Your task to perform on an android device: turn on the 12-hour format for clock Image 0: 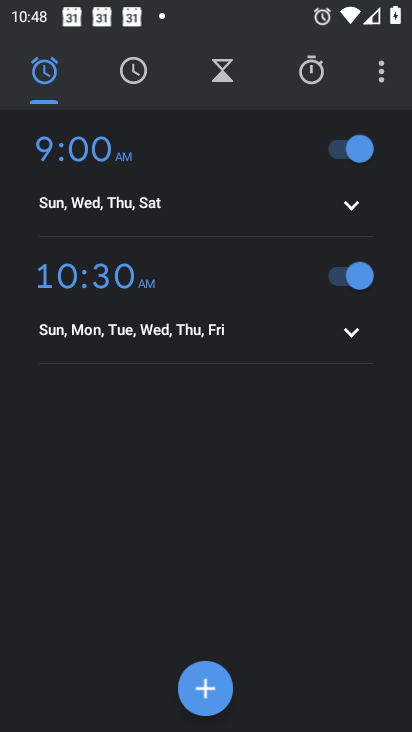
Step 0: press home button
Your task to perform on an android device: turn on the 12-hour format for clock Image 1: 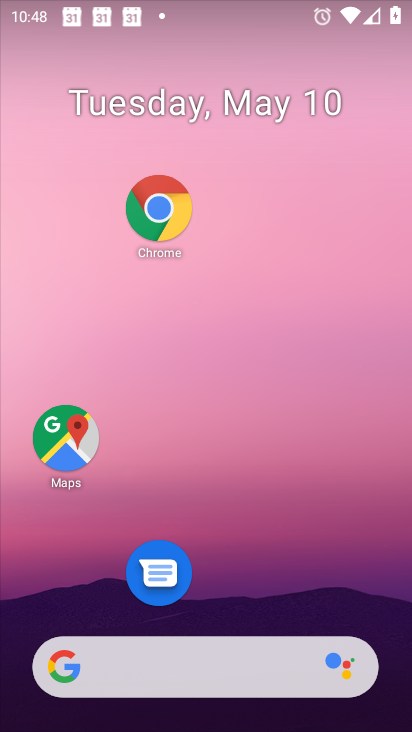
Step 1: drag from (271, 690) to (308, 141)
Your task to perform on an android device: turn on the 12-hour format for clock Image 2: 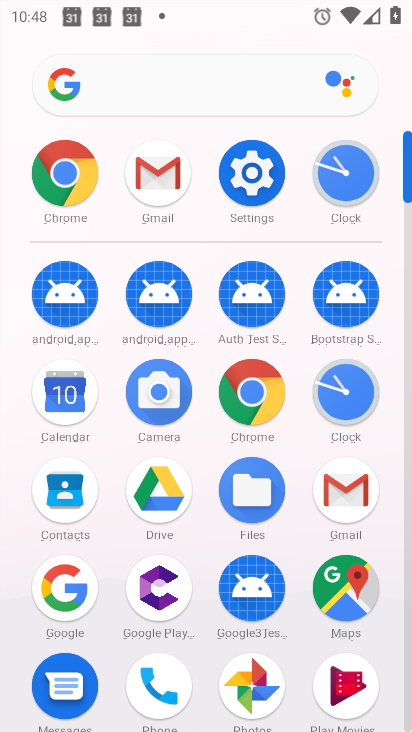
Step 2: click (352, 396)
Your task to perform on an android device: turn on the 12-hour format for clock Image 3: 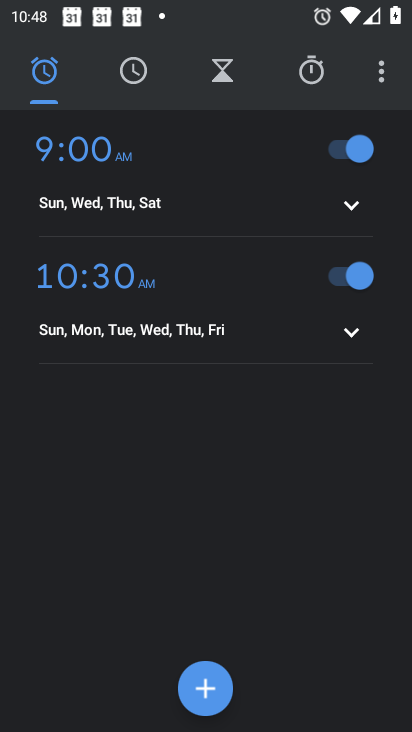
Step 3: click (379, 77)
Your task to perform on an android device: turn on the 12-hour format for clock Image 4: 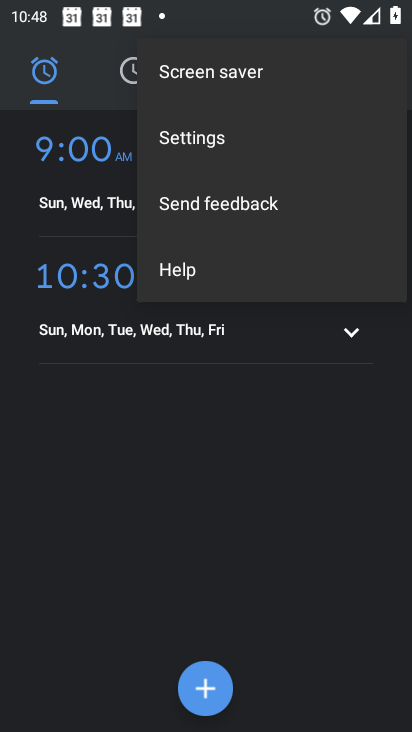
Step 4: click (222, 145)
Your task to perform on an android device: turn on the 12-hour format for clock Image 5: 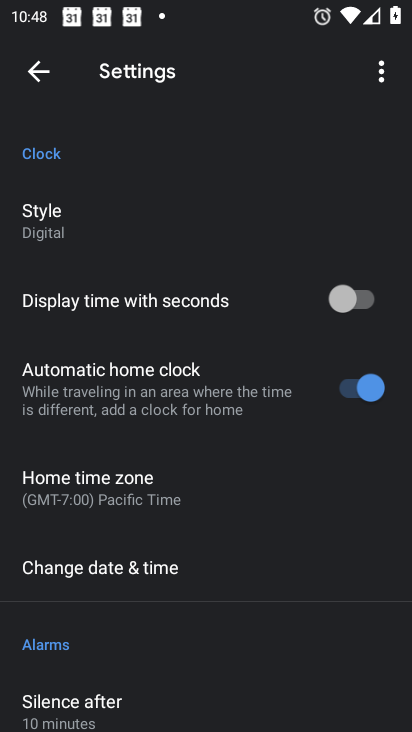
Step 5: drag from (166, 543) to (179, 472)
Your task to perform on an android device: turn on the 12-hour format for clock Image 6: 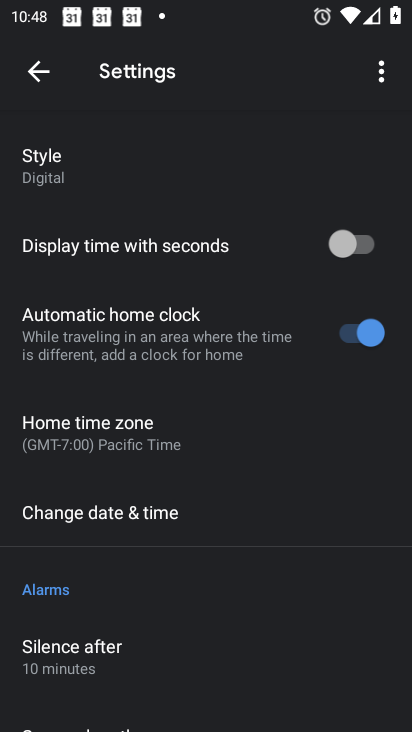
Step 6: click (144, 516)
Your task to perform on an android device: turn on the 12-hour format for clock Image 7: 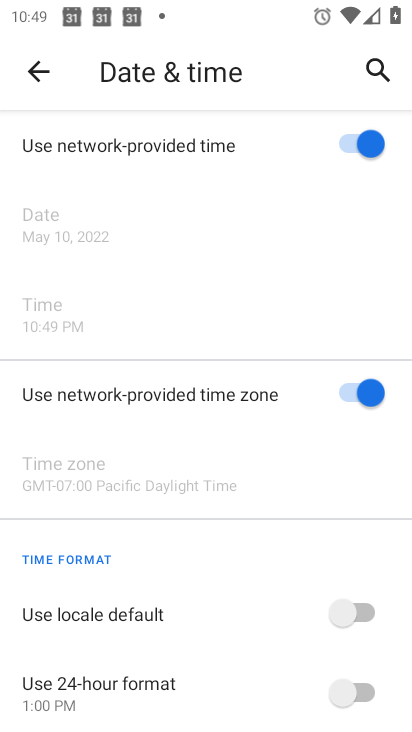
Step 7: click (359, 689)
Your task to perform on an android device: turn on the 12-hour format for clock Image 8: 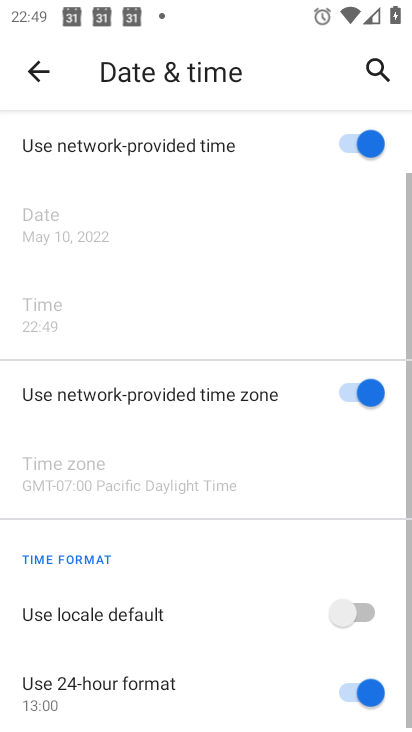
Step 8: click (352, 692)
Your task to perform on an android device: turn on the 12-hour format for clock Image 9: 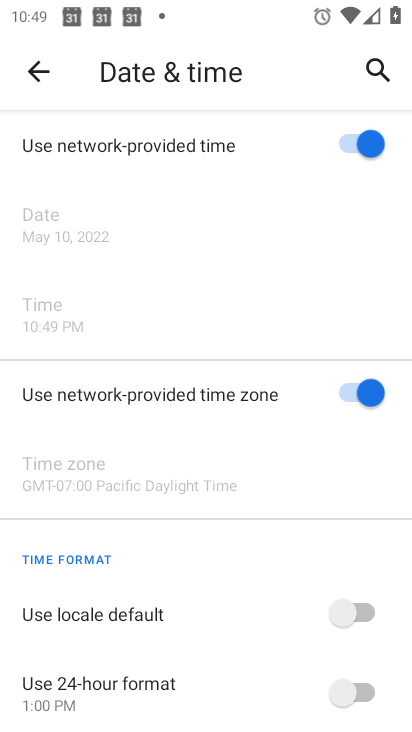
Step 9: task complete